Your task to perform on an android device: choose inbox layout in the gmail app Image 0: 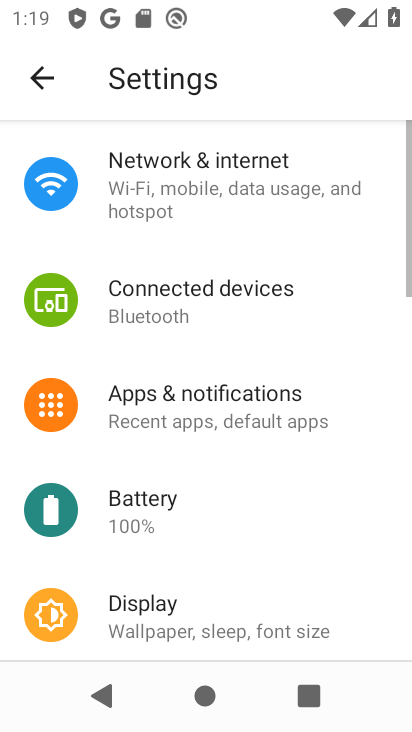
Step 0: press home button
Your task to perform on an android device: choose inbox layout in the gmail app Image 1: 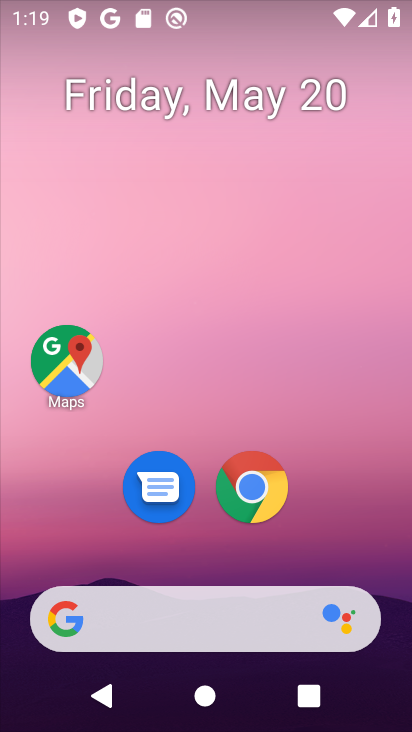
Step 1: drag from (210, 548) to (199, 59)
Your task to perform on an android device: choose inbox layout in the gmail app Image 2: 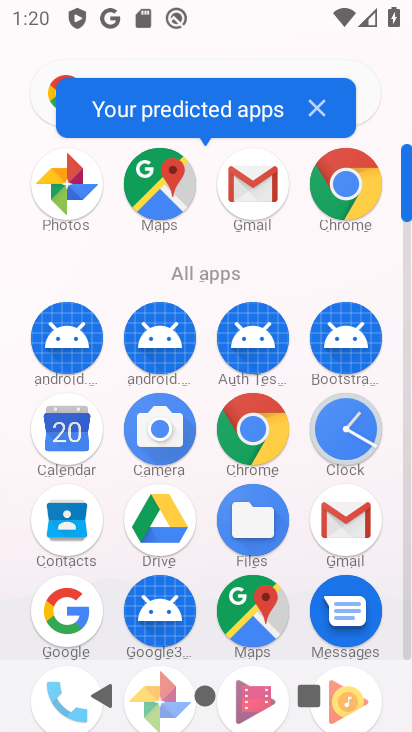
Step 2: click (250, 186)
Your task to perform on an android device: choose inbox layout in the gmail app Image 3: 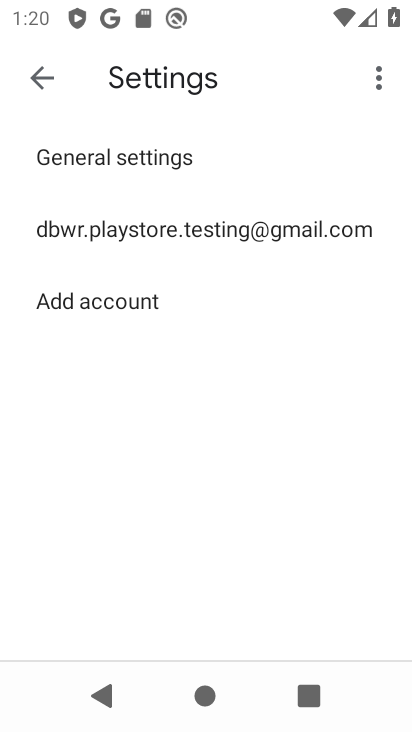
Step 3: click (198, 233)
Your task to perform on an android device: choose inbox layout in the gmail app Image 4: 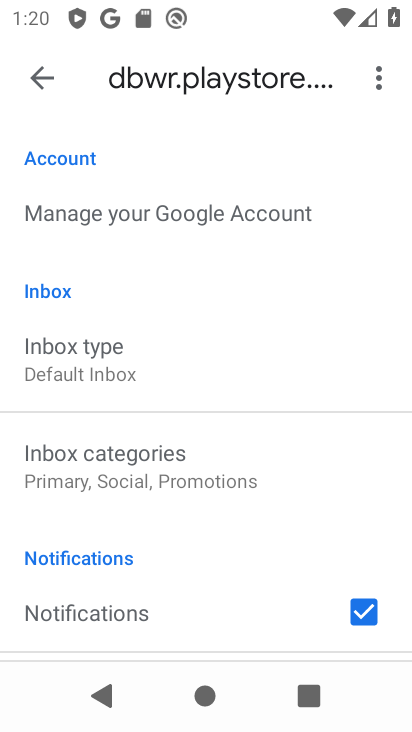
Step 4: click (138, 360)
Your task to perform on an android device: choose inbox layout in the gmail app Image 5: 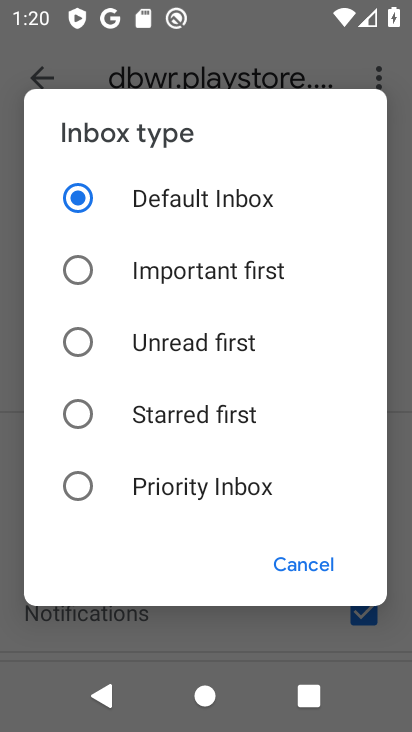
Step 5: click (74, 483)
Your task to perform on an android device: choose inbox layout in the gmail app Image 6: 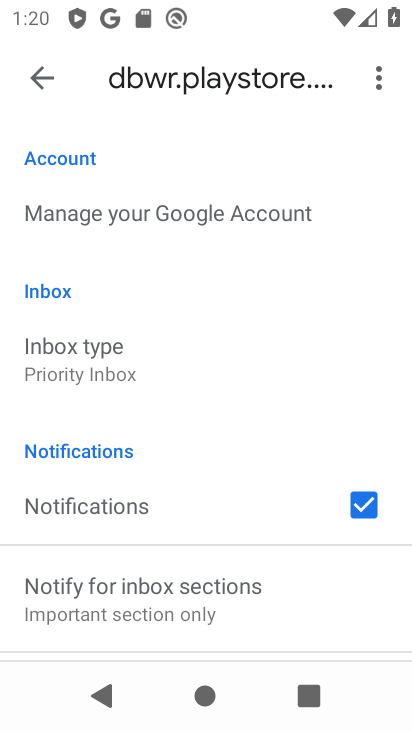
Step 6: click (141, 348)
Your task to perform on an android device: choose inbox layout in the gmail app Image 7: 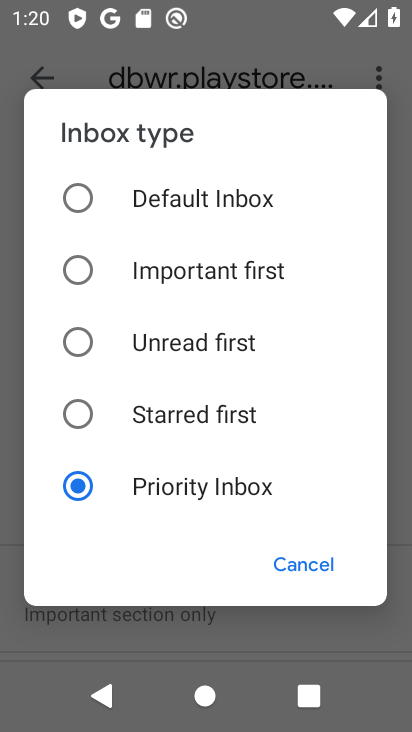
Step 7: task complete